Your task to perform on an android device: check android version Image 0: 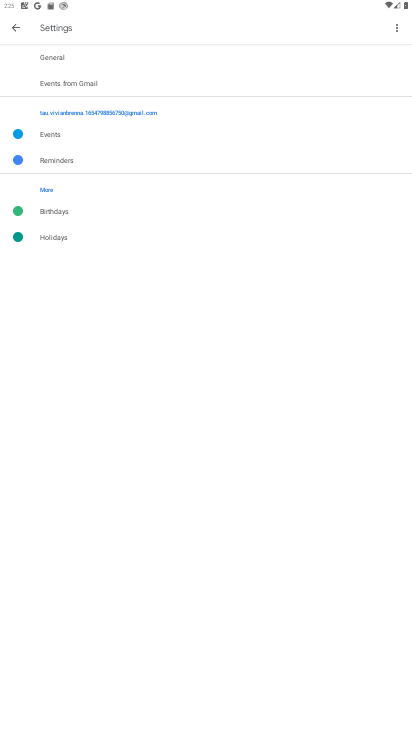
Step 0: press home button
Your task to perform on an android device: check android version Image 1: 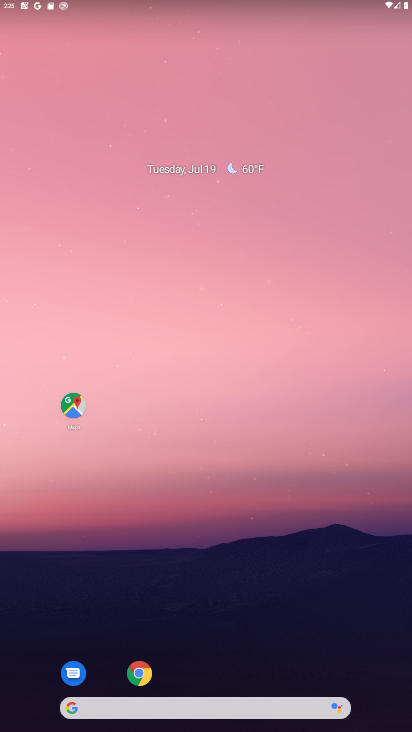
Step 1: drag from (103, 722) to (166, 173)
Your task to perform on an android device: check android version Image 2: 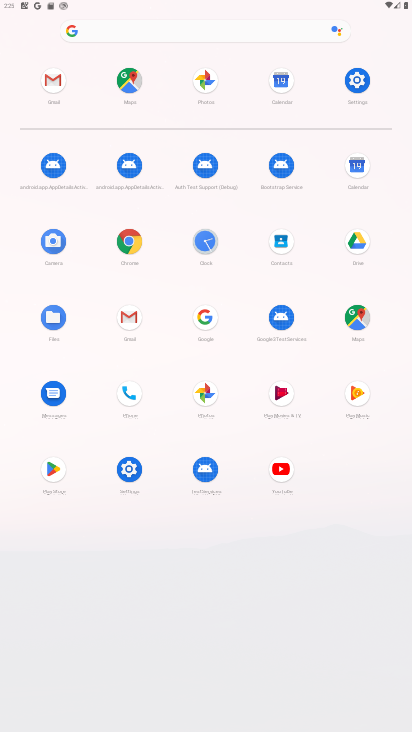
Step 2: click (353, 87)
Your task to perform on an android device: check android version Image 3: 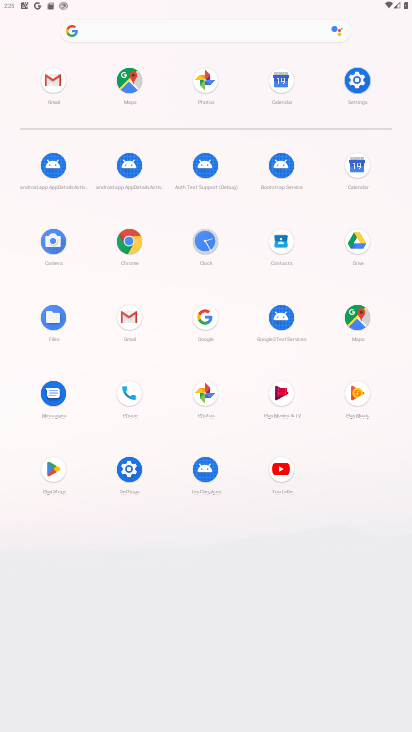
Step 3: click (353, 87)
Your task to perform on an android device: check android version Image 4: 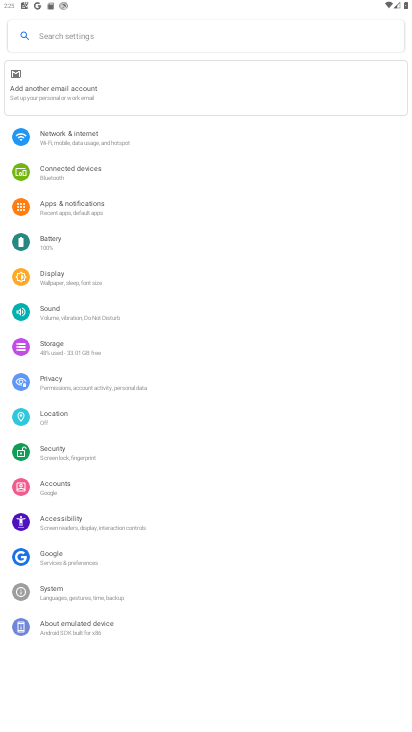
Step 4: click (88, 630)
Your task to perform on an android device: check android version Image 5: 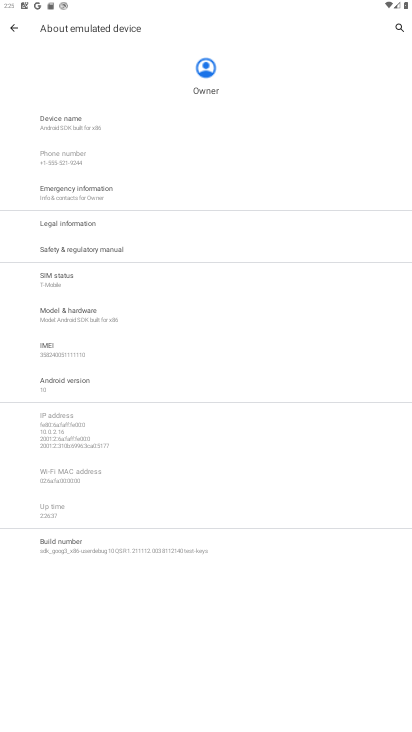
Step 5: click (158, 540)
Your task to perform on an android device: check android version Image 6: 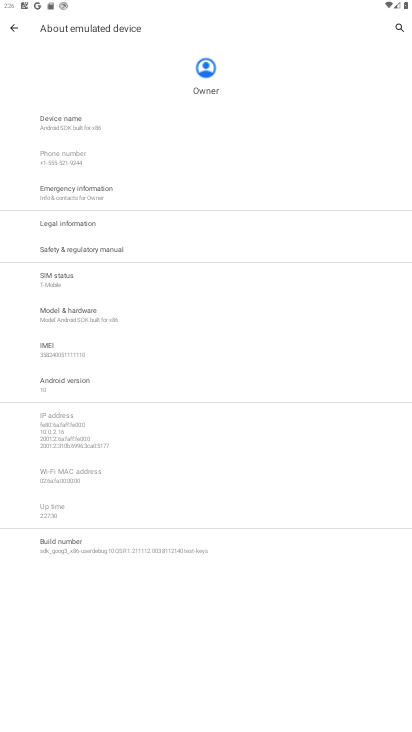
Step 6: task complete